Your task to perform on an android device: turn on data saver in the chrome app Image 0: 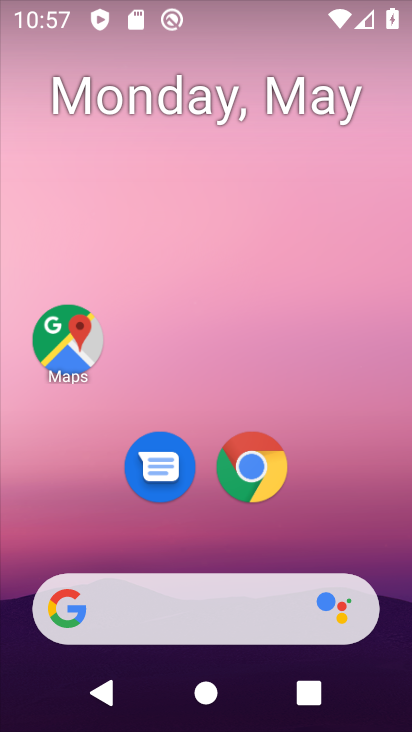
Step 0: click (283, 461)
Your task to perform on an android device: turn on data saver in the chrome app Image 1: 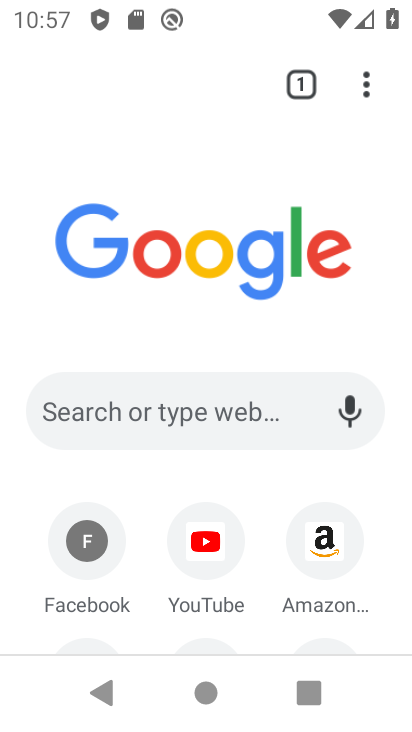
Step 1: click (381, 89)
Your task to perform on an android device: turn on data saver in the chrome app Image 2: 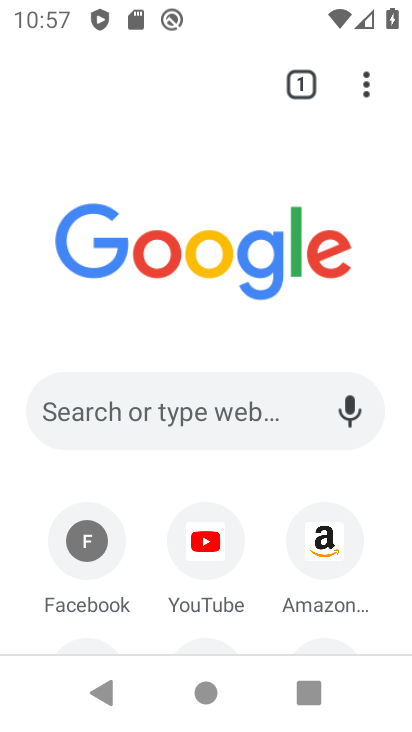
Step 2: drag from (226, 493) to (254, 151)
Your task to perform on an android device: turn on data saver in the chrome app Image 3: 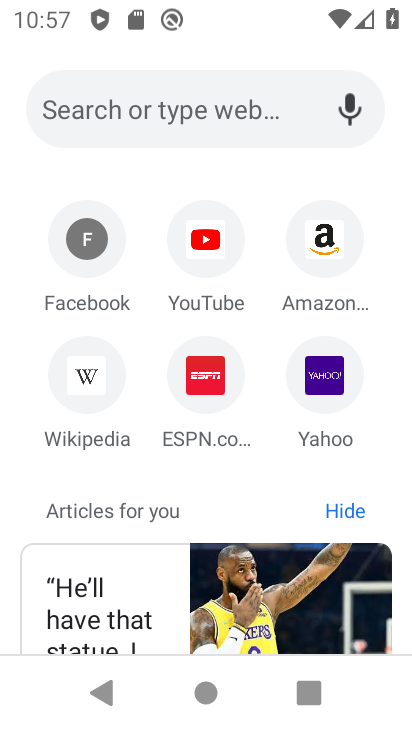
Step 3: drag from (359, 208) to (395, 689)
Your task to perform on an android device: turn on data saver in the chrome app Image 4: 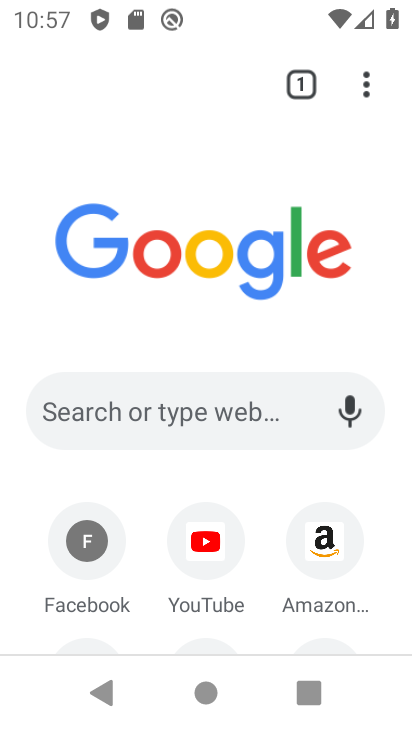
Step 4: click (356, 83)
Your task to perform on an android device: turn on data saver in the chrome app Image 5: 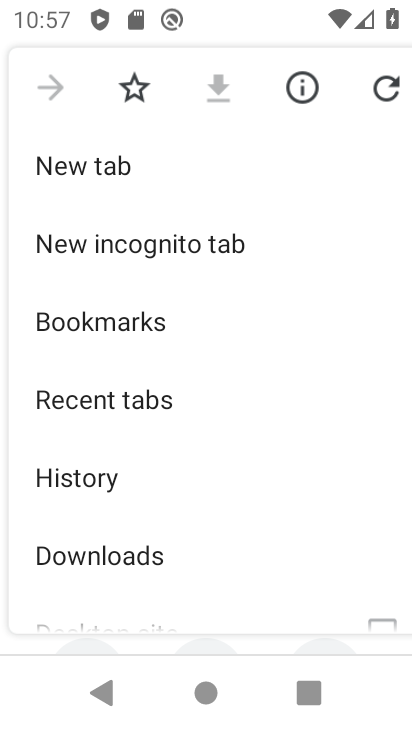
Step 5: drag from (185, 540) to (199, 251)
Your task to perform on an android device: turn on data saver in the chrome app Image 6: 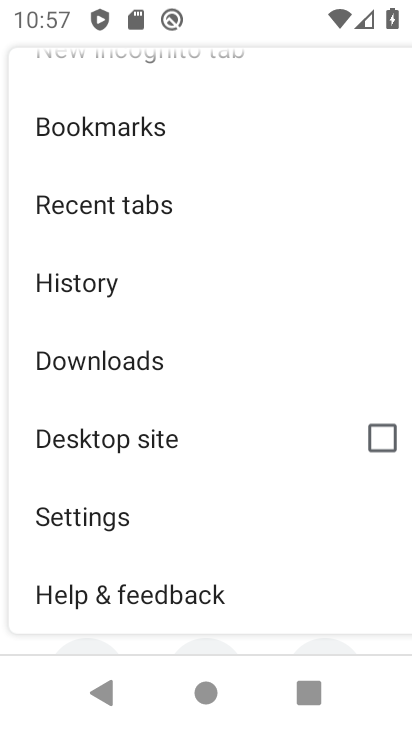
Step 6: click (179, 525)
Your task to perform on an android device: turn on data saver in the chrome app Image 7: 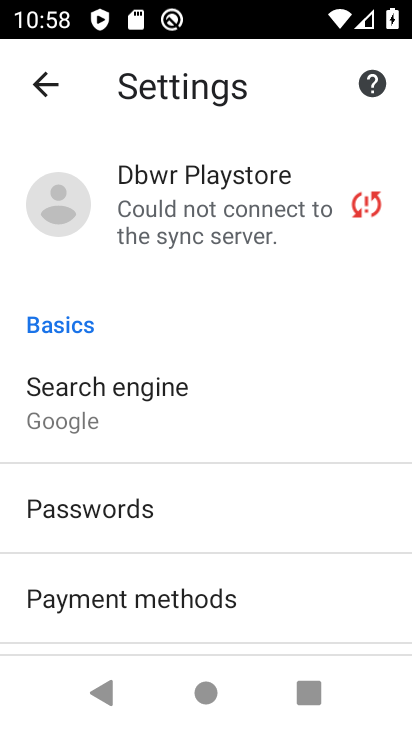
Step 7: drag from (179, 525) to (211, 171)
Your task to perform on an android device: turn on data saver in the chrome app Image 8: 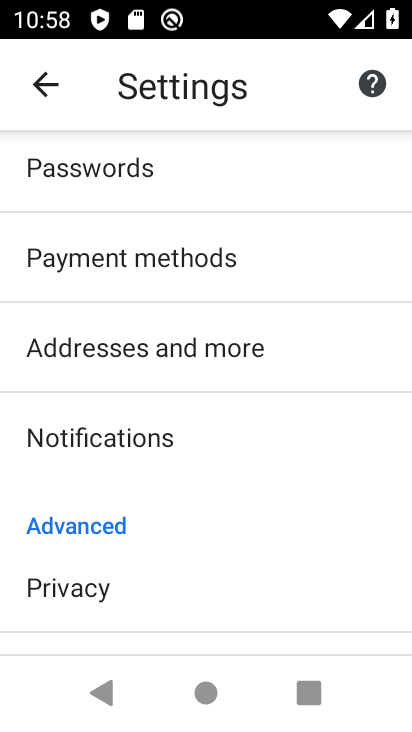
Step 8: drag from (156, 593) to (184, 197)
Your task to perform on an android device: turn on data saver in the chrome app Image 9: 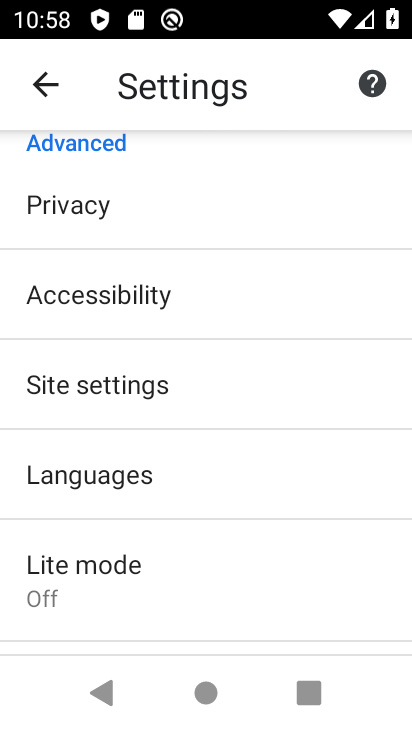
Step 9: click (196, 553)
Your task to perform on an android device: turn on data saver in the chrome app Image 10: 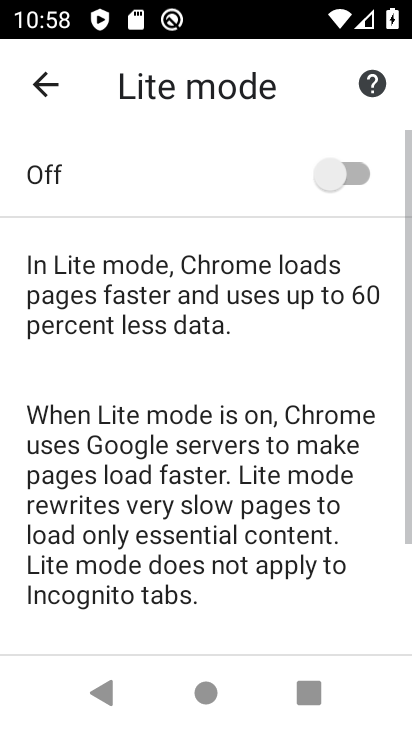
Step 10: click (344, 201)
Your task to perform on an android device: turn on data saver in the chrome app Image 11: 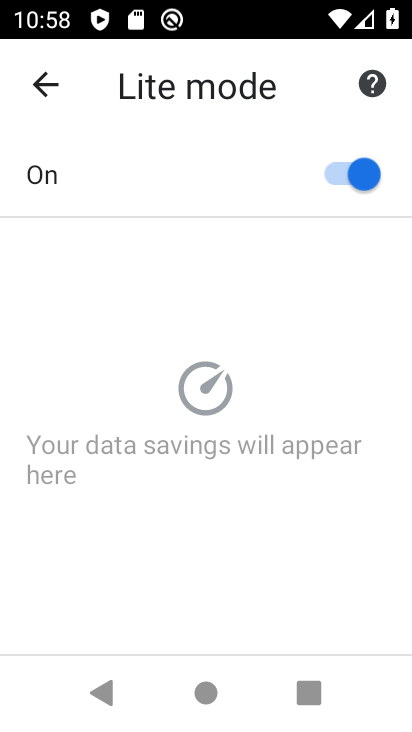
Step 11: task complete